Your task to perform on an android device: change notification settings in the gmail app Image 0: 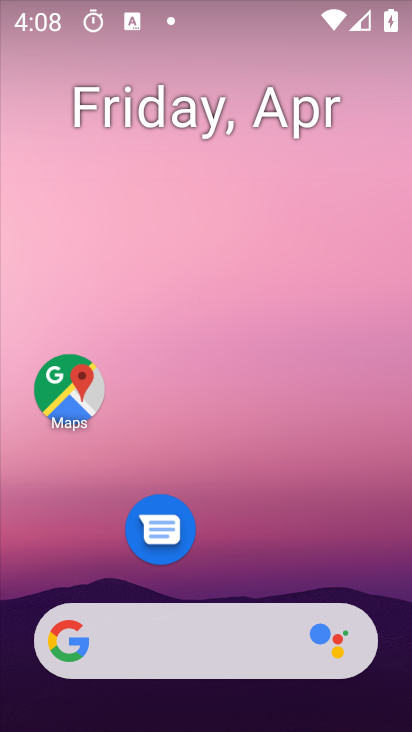
Step 0: drag from (283, 511) to (354, 45)
Your task to perform on an android device: change notification settings in the gmail app Image 1: 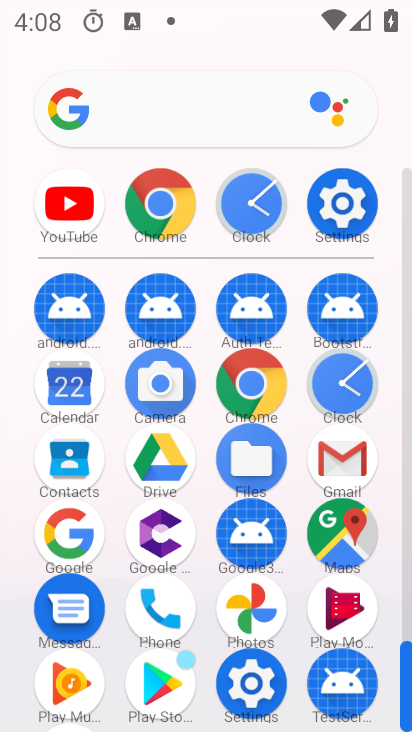
Step 1: click (349, 466)
Your task to perform on an android device: change notification settings in the gmail app Image 2: 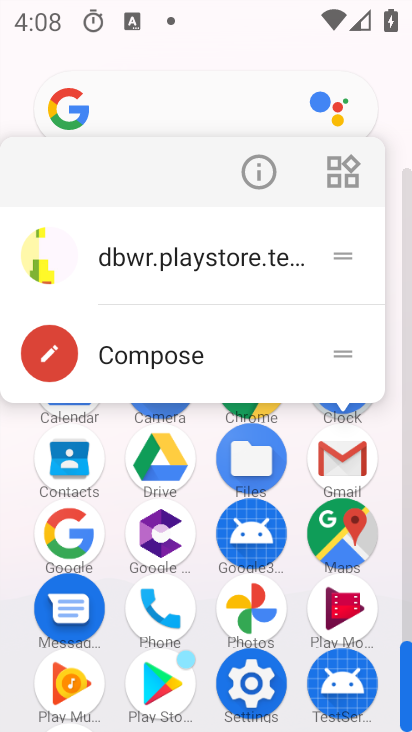
Step 2: click (346, 439)
Your task to perform on an android device: change notification settings in the gmail app Image 3: 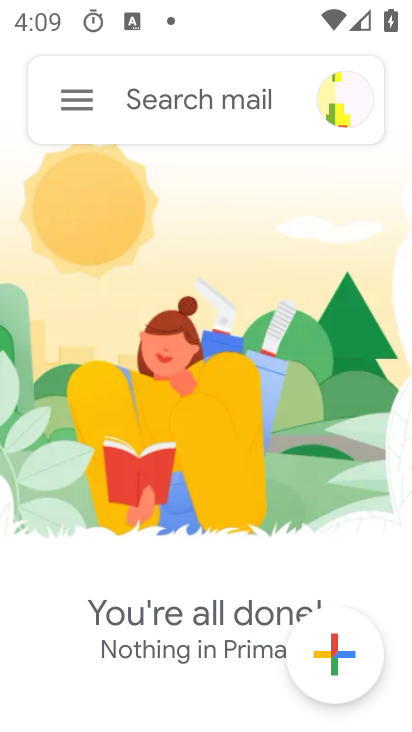
Step 3: click (92, 98)
Your task to perform on an android device: change notification settings in the gmail app Image 4: 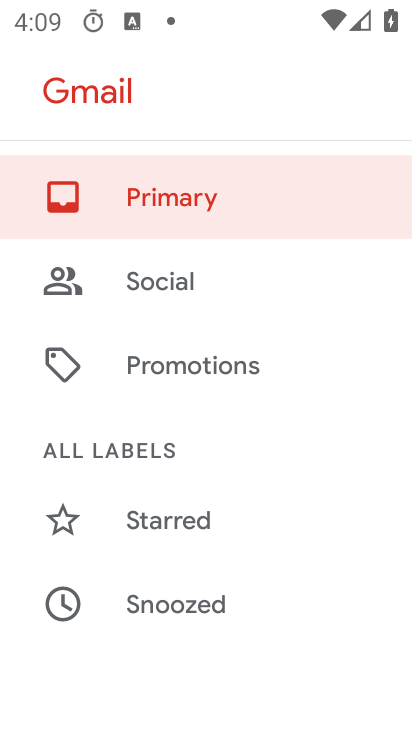
Step 4: drag from (176, 530) to (299, 85)
Your task to perform on an android device: change notification settings in the gmail app Image 5: 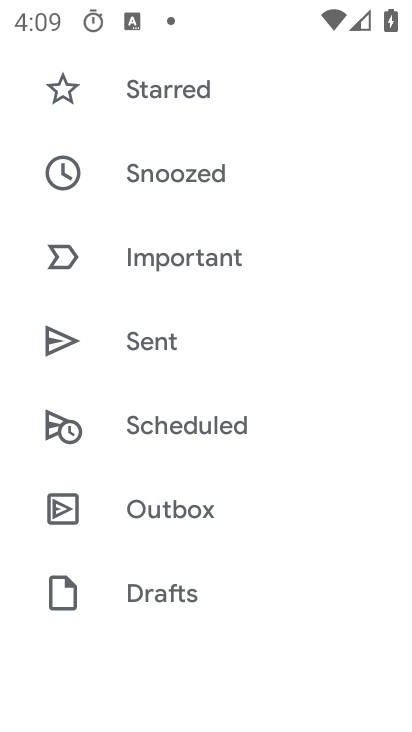
Step 5: drag from (213, 558) to (307, 40)
Your task to perform on an android device: change notification settings in the gmail app Image 6: 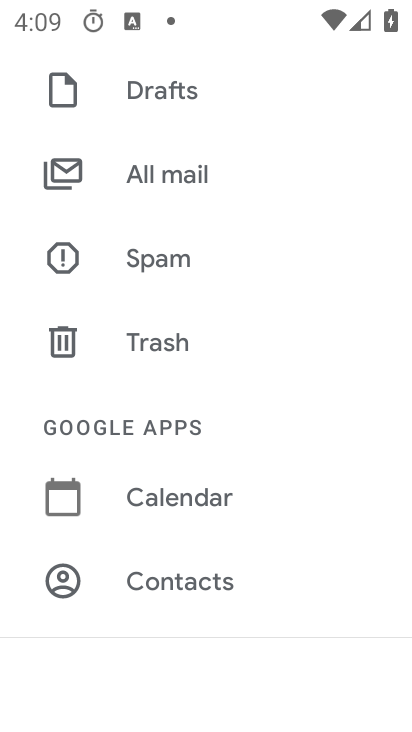
Step 6: drag from (217, 520) to (296, 174)
Your task to perform on an android device: change notification settings in the gmail app Image 7: 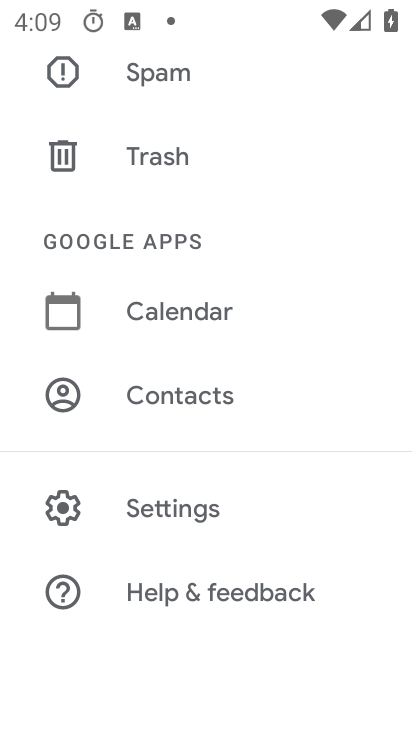
Step 7: click (199, 521)
Your task to perform on an android device: change notification settings in the gmail app Image 8: 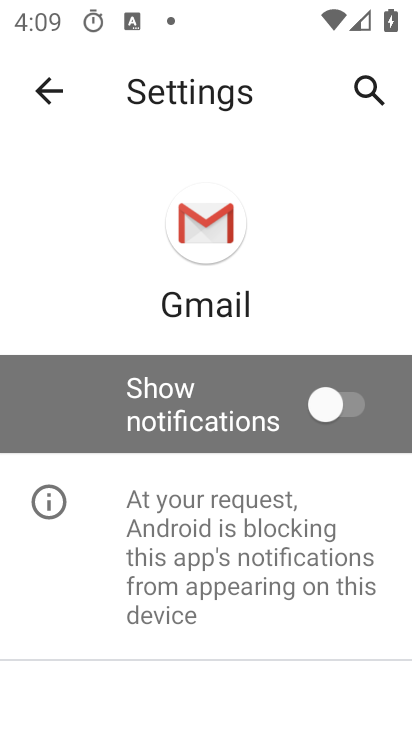
Step 8: click (355, 406)
Your task to perform on an android device: change notification settings in the gmail app Image 9: 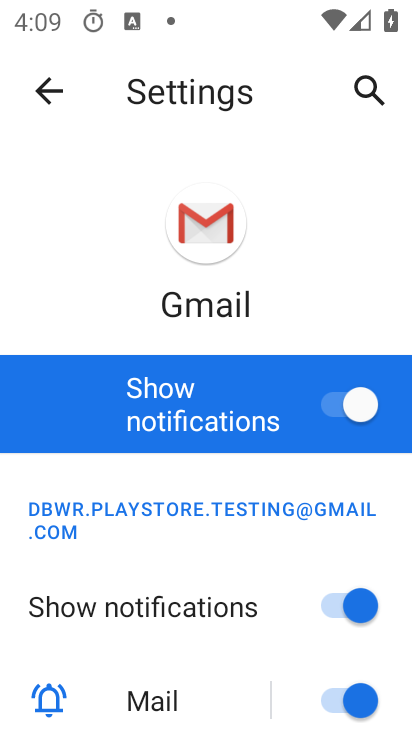
Step 9: task complete